Your task to perform on an android device: Open eBay Image 0: 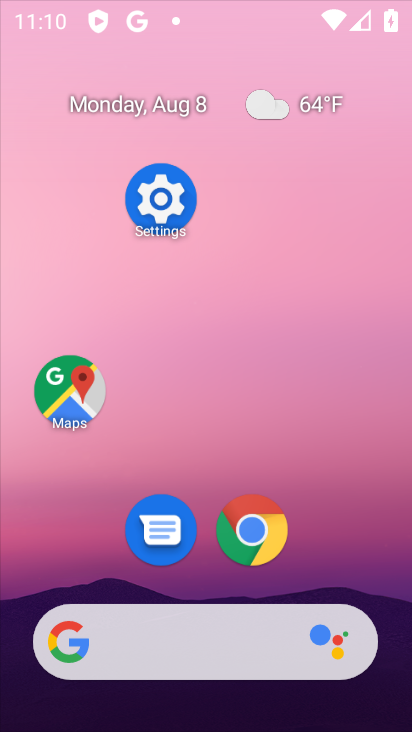
Step 0: click (169, 465)
Your task to perform on an android device: Open eBay Image 1: 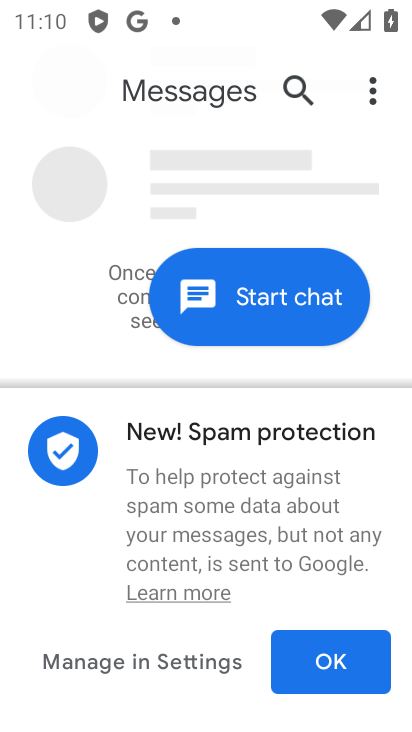
Step 1: press back button
Your task to perform on an android device: Open eBay Image 2: 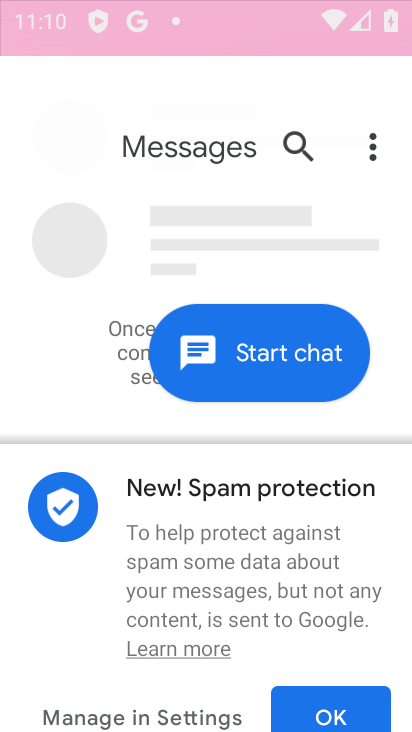
Step 2: press back button
Your task to perform on an android device: Open eBay Image 3: 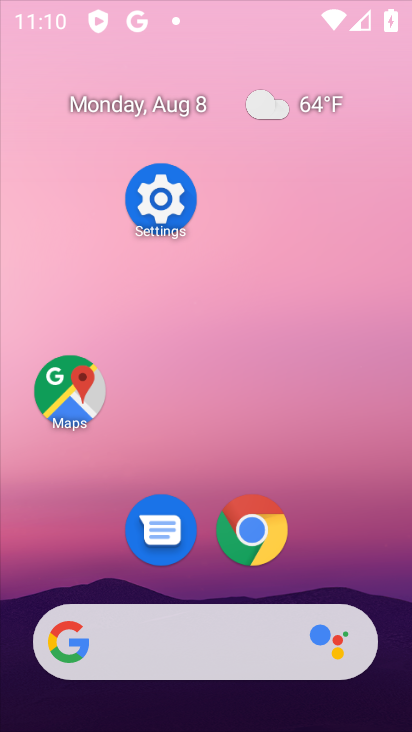
Step 3: press back button
Your task to perform on an android device: Open eBay Image 4: 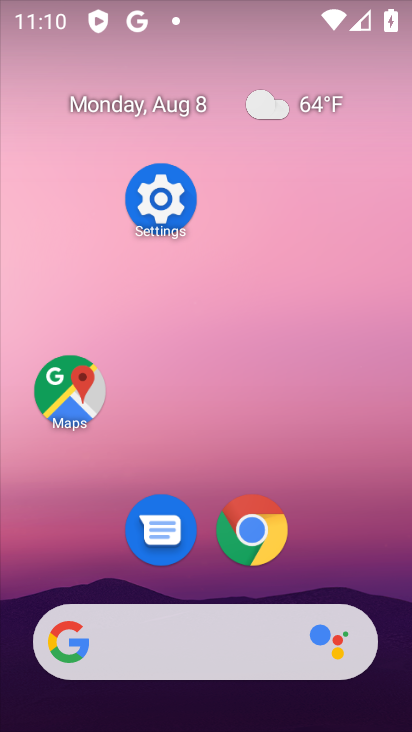
Step 4: drag from (263, 641) to (211, 129)
Your task to perform on an android device: Open eBay Image 5: 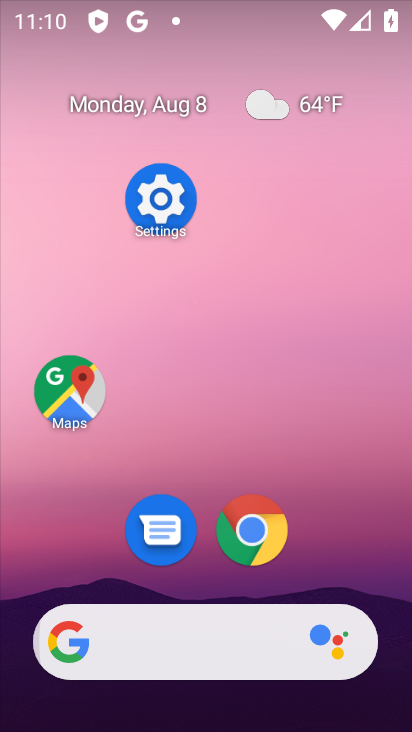
Step 5: drag from (249, 597) to (203, 245)
Your task to perform on an android device: Open eBay Image 6: 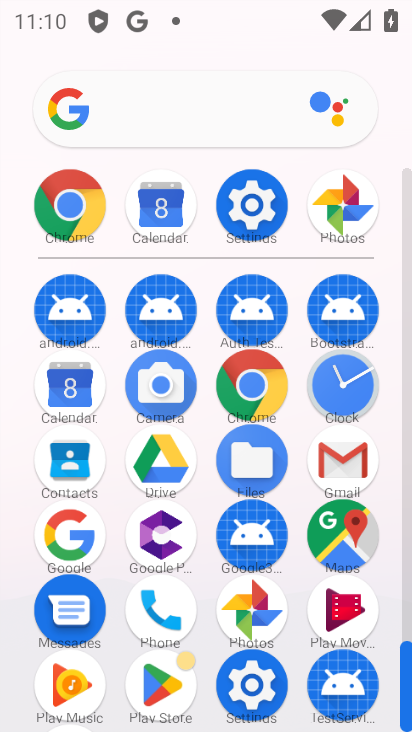
Step 6: click (67, 223)
Your task to perform on an android device: Open eBay Image 7: 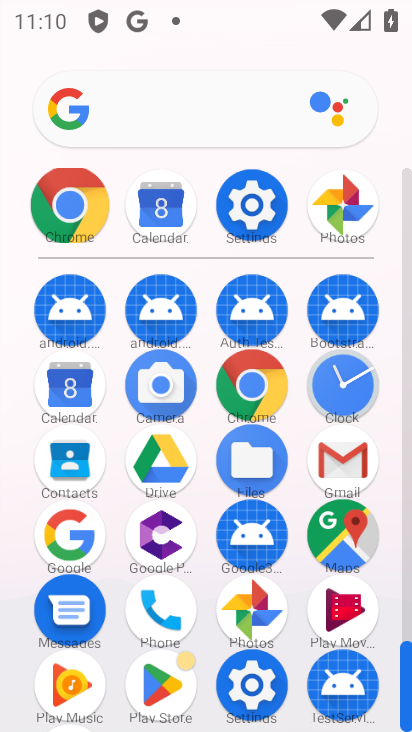
Step 7: click (61, 221)
Your task to perform on an android device: Open eBay Image 8: 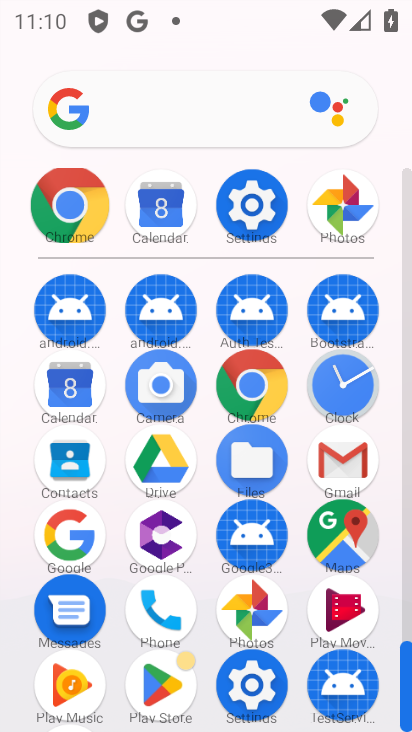
Step 8: click (63, 222)
Your task to perform on an android device: Open eBay Image 9: 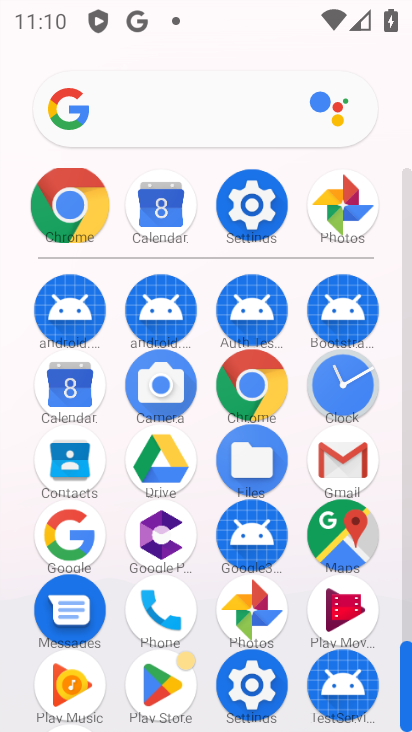
Step 9: click (62, 220)
Your task to perform on an android device: Open eBay Image 10: 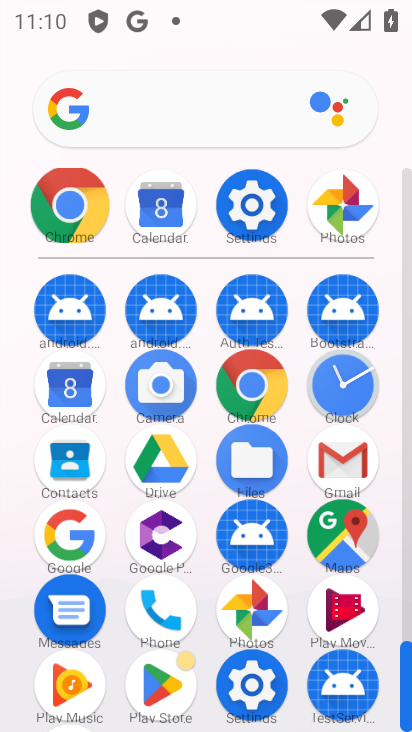
Step 10: click (64, 222)
Your task to perform on an android device: Open eBay Image 11: 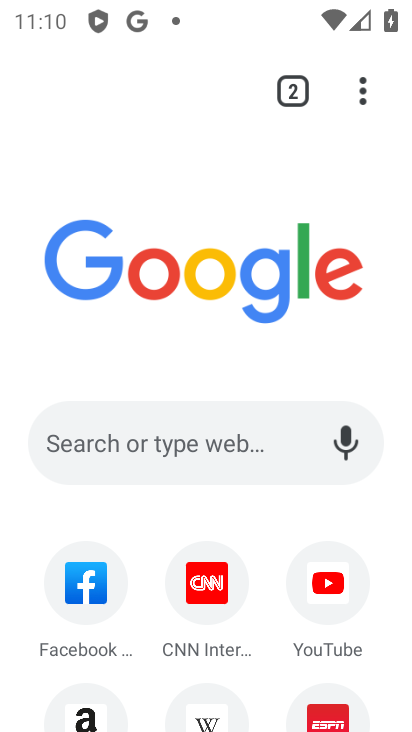
Step 11: click (69, 211)
Your task to perform on an android device: Open eBay Image 12: 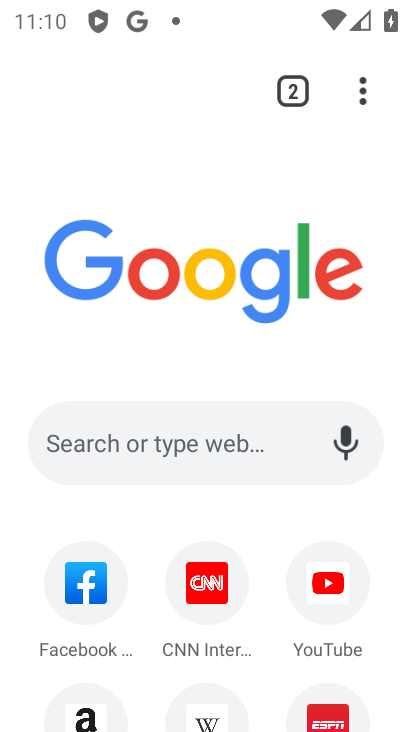
Step 12: drag from (248, 665) to (208, 247)
Your task to perform on an android device: Open eBay Image 13: 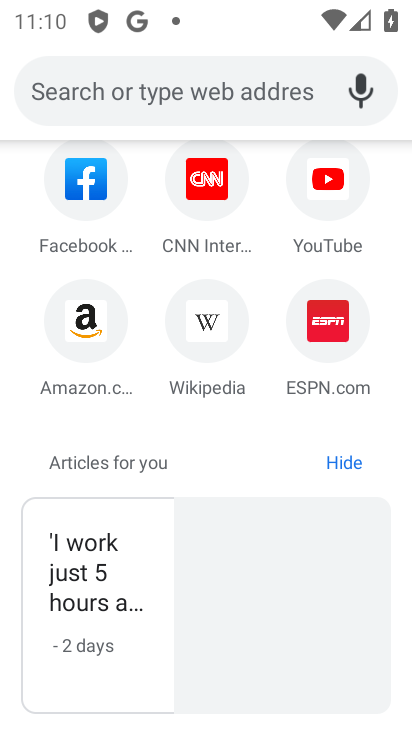
Step 13: drag from (237, 544) to (239, 388)
Your task to perform on an android device: Open eBay Image 14: 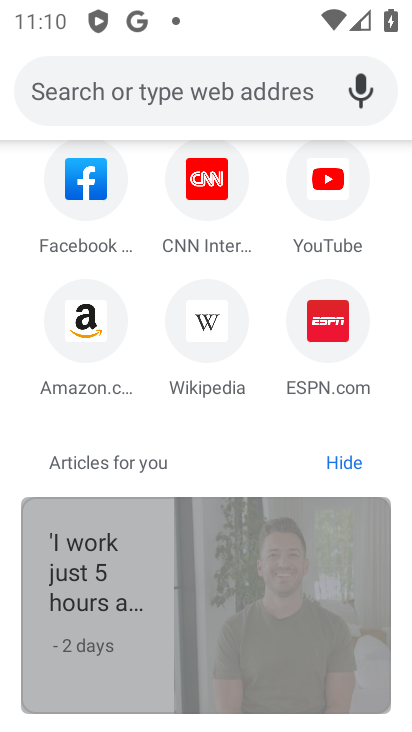
Step 14: drag from (252, 539) to (232, 276)
Your task to perform on an android device: Open eBay Image 15: 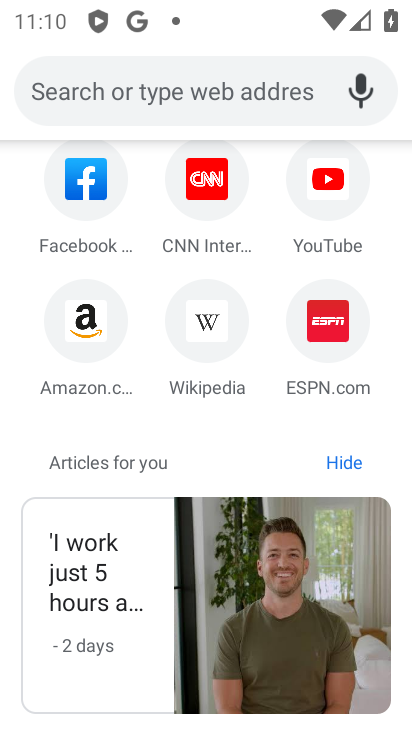
Step 15: drag from (181, 221) to (181, 483)
Your task to perform on an android device: Open eBay Image 16: 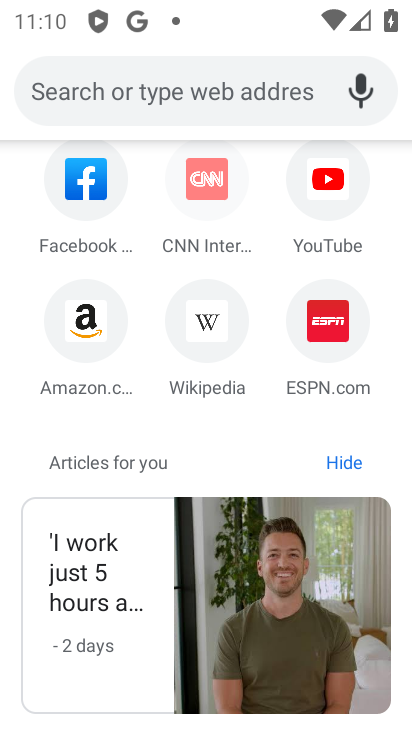
Step 16: drag from (157, 308) to (168, 571)
Your task to perform on an android device: Open eBay Image 17: 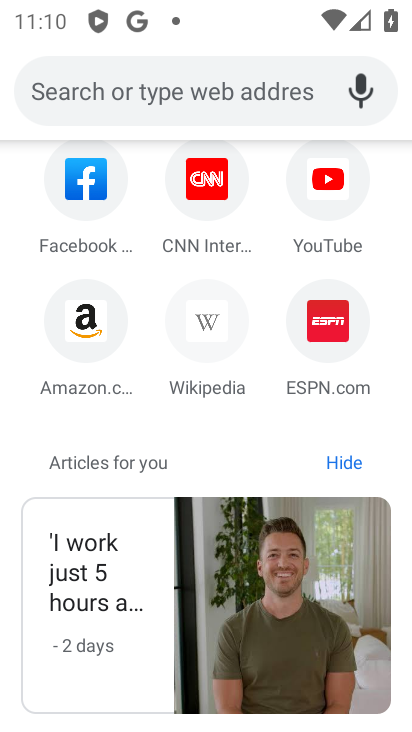
Step 17: drag from (180, 323) to (220, 607)
Your task to perform on an android device: Open eBay Image 18: 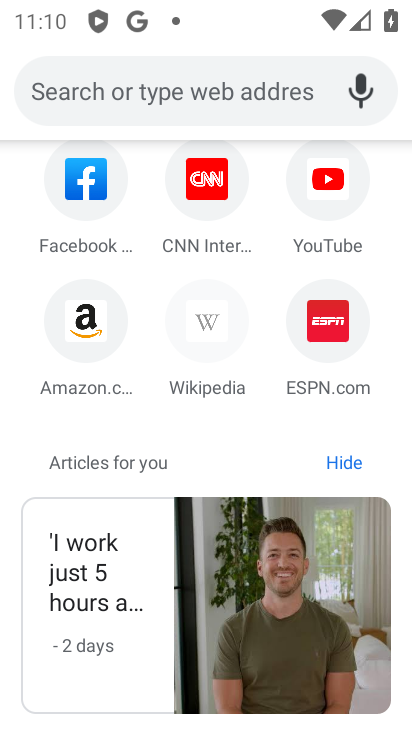
Step 18: drag from (219, 282) to (263, 524)
Your task to perform on an android device: Open eBay Image 19: 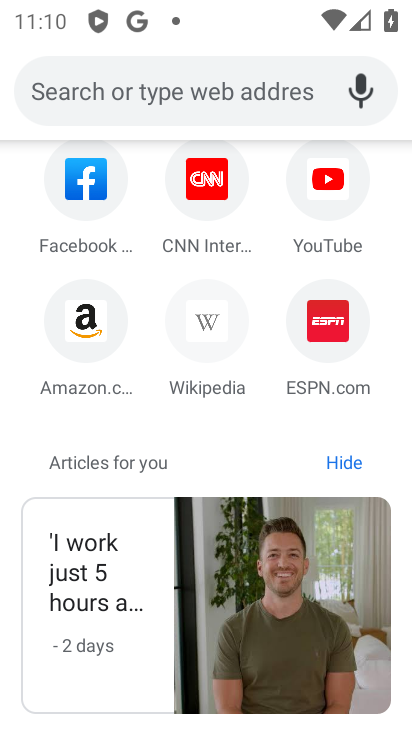
Step 19: drag from (266, 320) to (338, 540)
Your task to perform on an android device: Open eBay Image 20: 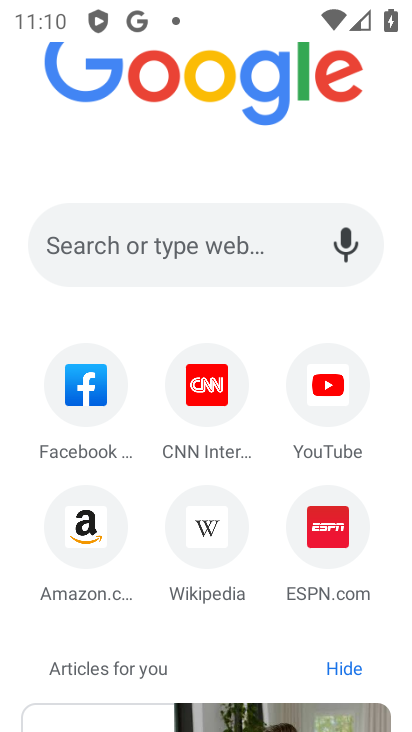
Step 20: click (85, 229)
Your task to perform on an android device: Open eBay Image 21: 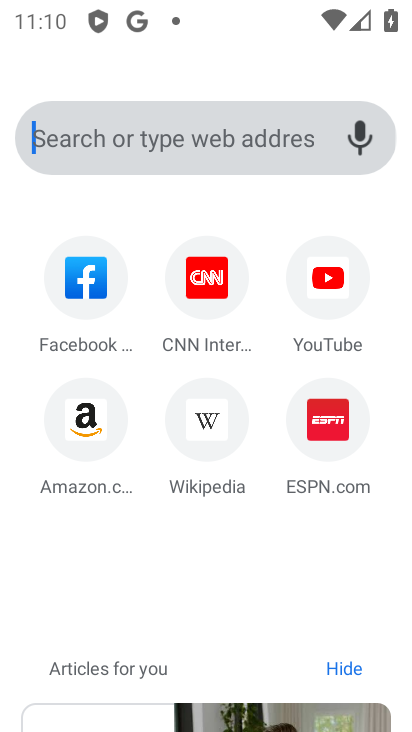
Step 21: click (101, 245)
Your task to perform on an android device: Open eBay Image 22: 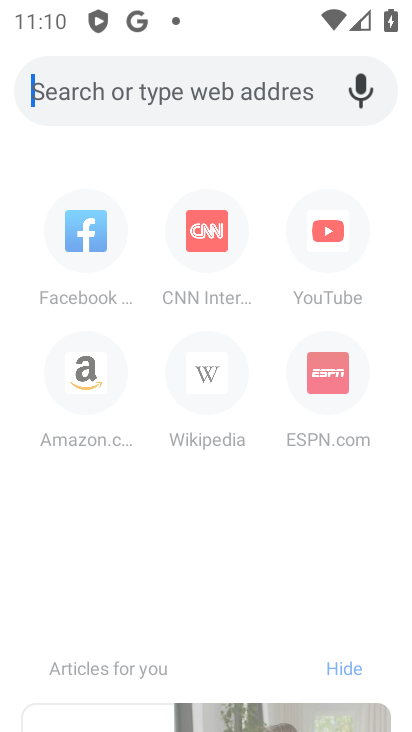
Step 22: click (103, 247)
Your task to perform on an android device: Open eBay Image 23: 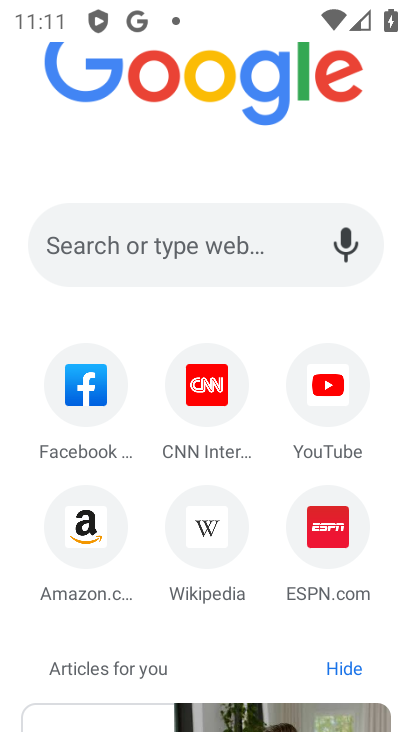
Step 23: click (69, 238)
Your task to perform on an android device: Open eBay Image 24: 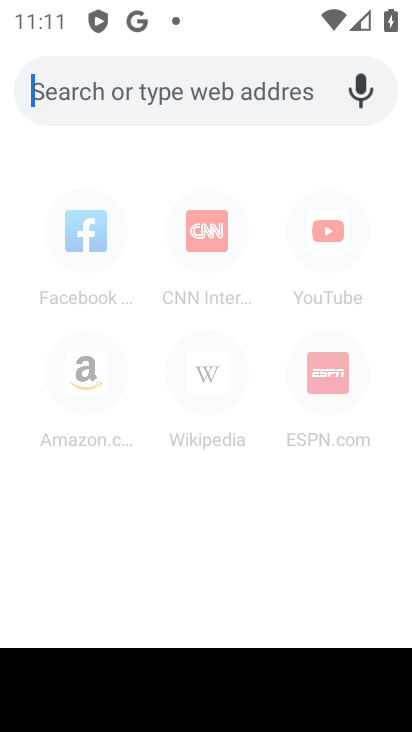
Step 24: type "ebay.com"
Your task to perform on an android device: Open eBay Image 25: 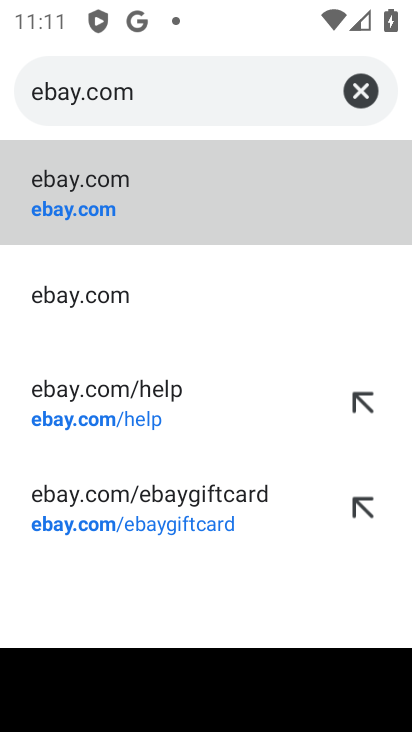
Step 25: click (63, 200)
Your task to perform on an android device: Open eBay Image 26: 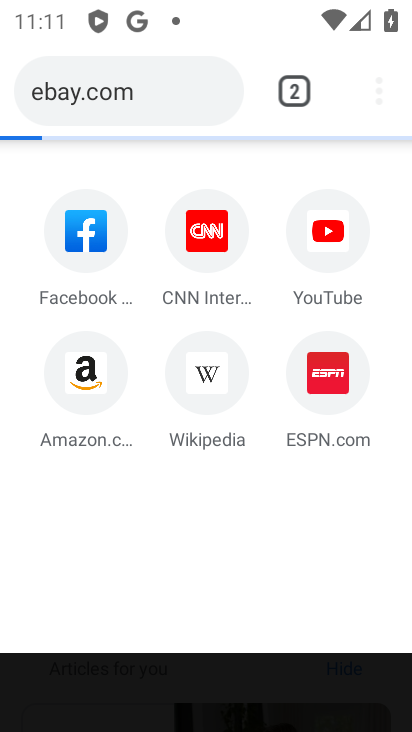
Step 26: click (63, 200)
Your task to perform on an android device: Open eBay Image 27: 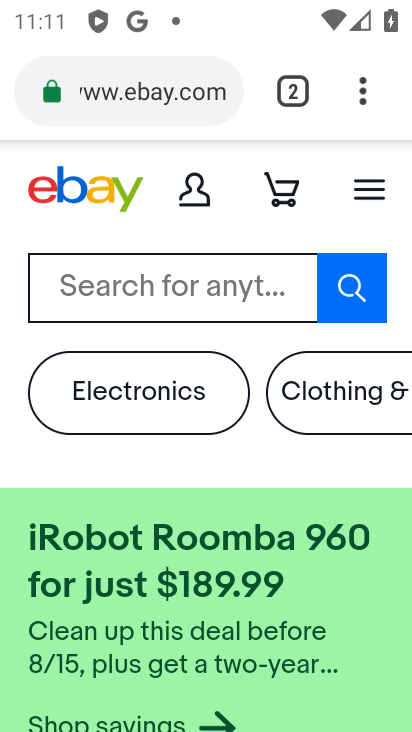
Step 27: task complete